Your task to perform on an android device: Go to wifi settings Image 0: 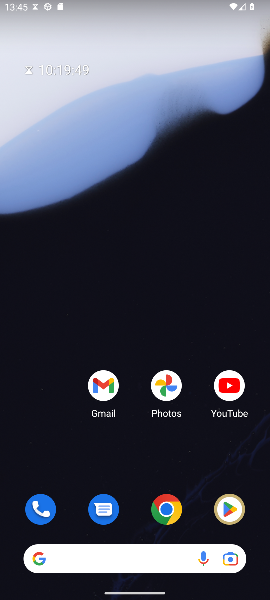
Step 0: press home button
Your task to perform on an android device: Go to wifi settings Image 1: 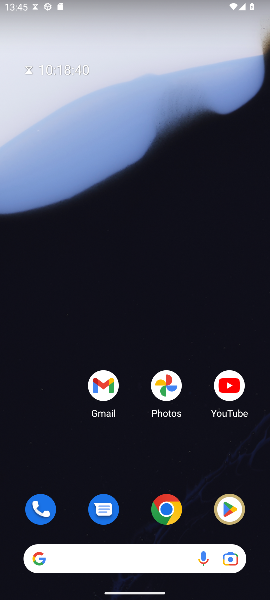
Step 1: drag from (136, 525) to (142, 164)
Your task to perform on an android device: Go to wifi settings Image 2: 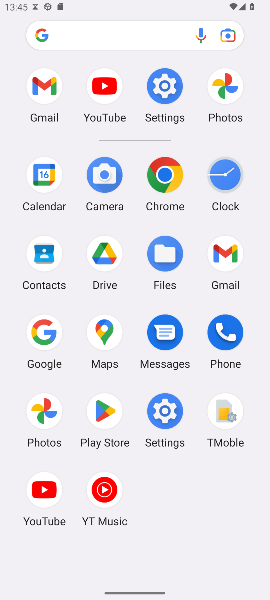
Step 2: click (173, 86)
Your task to perform on an android device: Go to wifi settings Image 3: 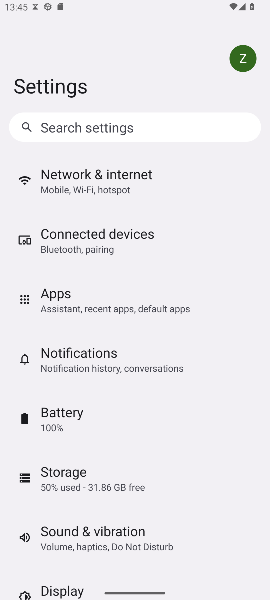
Step 3: click (82, 178)
Your task to perform on an android device: Go to wifi settings Image 4: 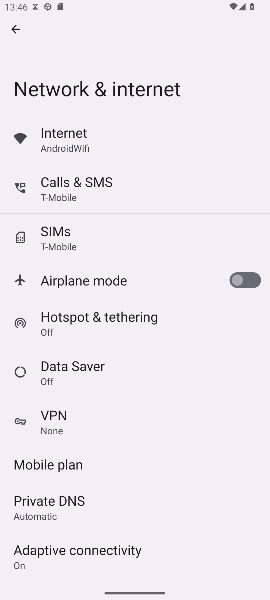
Step 4: click (71, 141)
Your task to perform on an android device: Go to wifi settings Image 5: 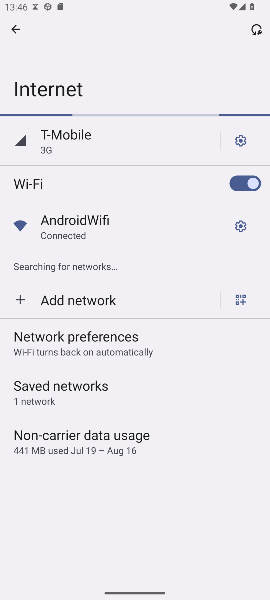
Step 5: click (62, 234)
Your task to perform on an android device: Go to wifi settings Image 6: 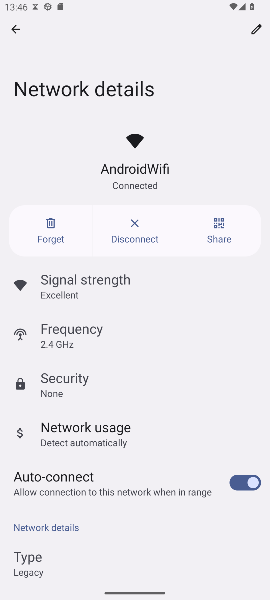
Step 6: task complete